Your task to perform on an android device: clear all cookies in the chrome app Image 0: 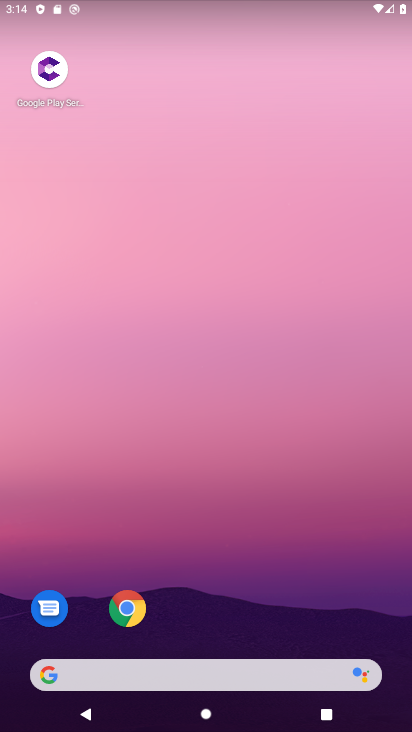
Step 0: drag from (204, 547) to (211, 246)
Your task to perform on an android device: clear all cookies in the chrome app Image 1: 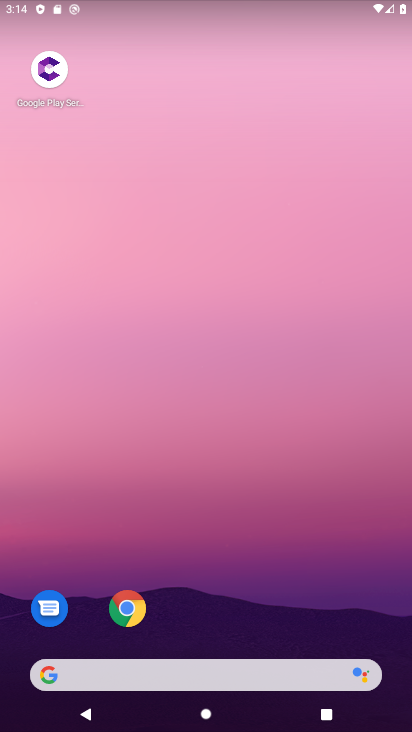
Step 1: drag from (236, 635) to (258, 189)
Your task to perform on an android device: clear all cookies in the chrome app Image 2: 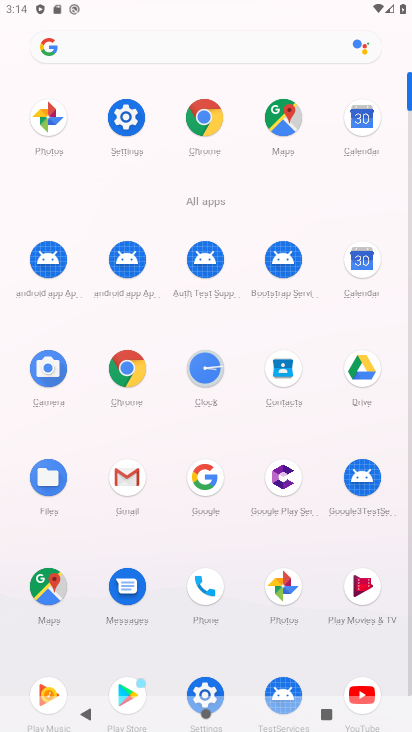
Step 2: click (131, 362)
Your task to perform on an android device: clear all cookies in the chrome app Image 3: 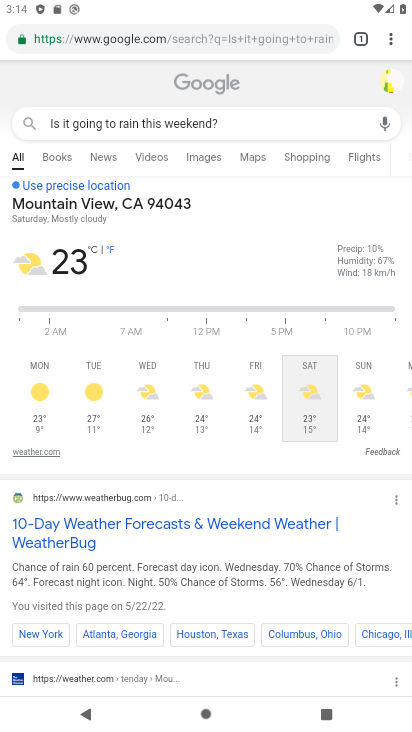
Step 3: click (391, 31)
Your task to perform on an android device: clear all cookies in the chrome app Image 4: 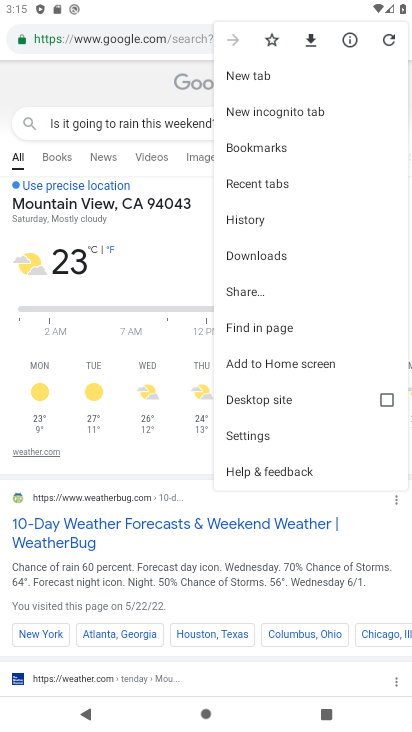
Step 4: click (252, 437)
Your task to perform on an android device: clear all cookies in the chrome app Image 5: 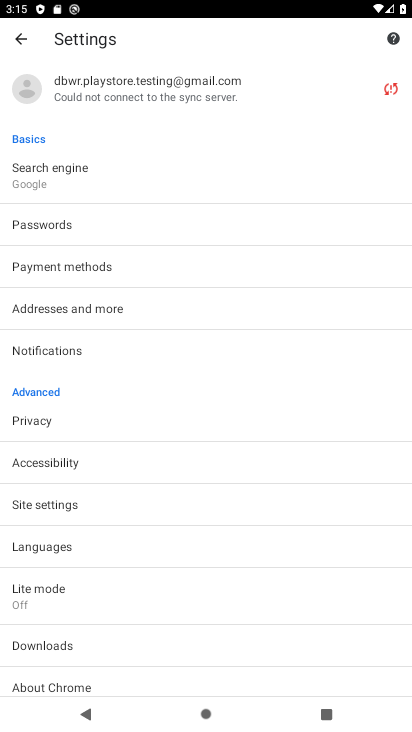
Step 5: press home button
Your task to perform on an android device: clear all cookies in the chrome app Image 6: 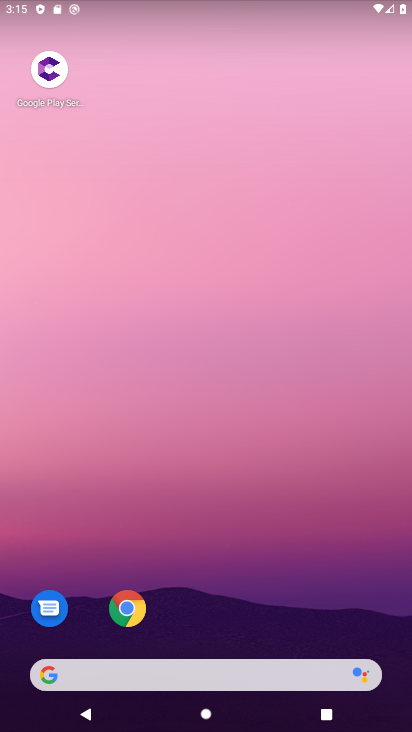
Step 6: click (128, 600)
Your task to perform on an android device: clear all cookies in the chrome app Image 7: 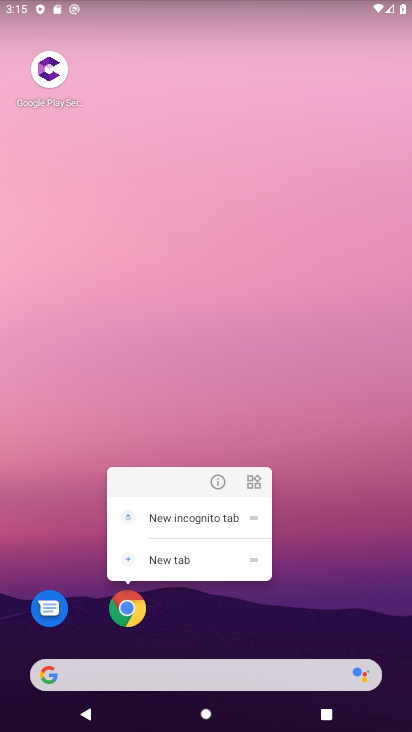
Step 7: click (126, 593)
Your task to perform on an android device: clear all cookies in the chrome app Image 8: 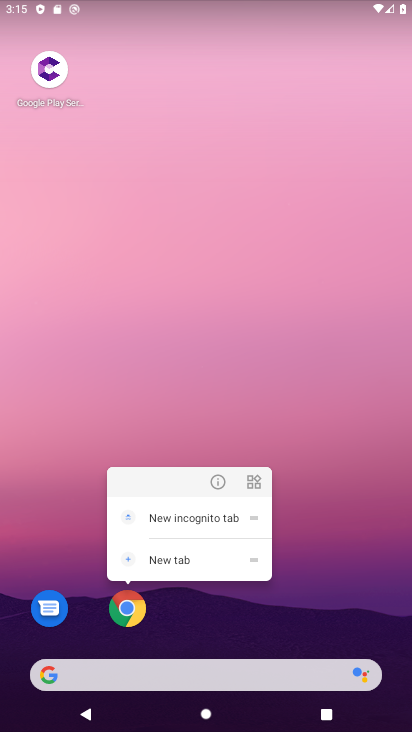
Step 8: click (126, 602)
Your task to perform on an android device: clear all cookies in the chrome app Image 9: 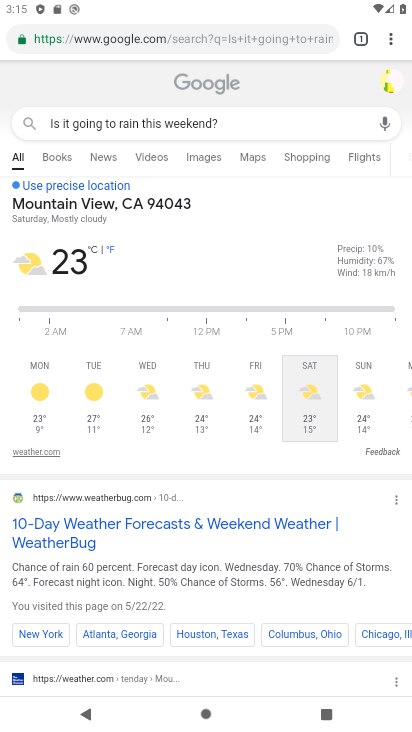
Step 9: click (394, 35)
Your task to perform on an android device: clear all cookies in the chrome app Image 10: 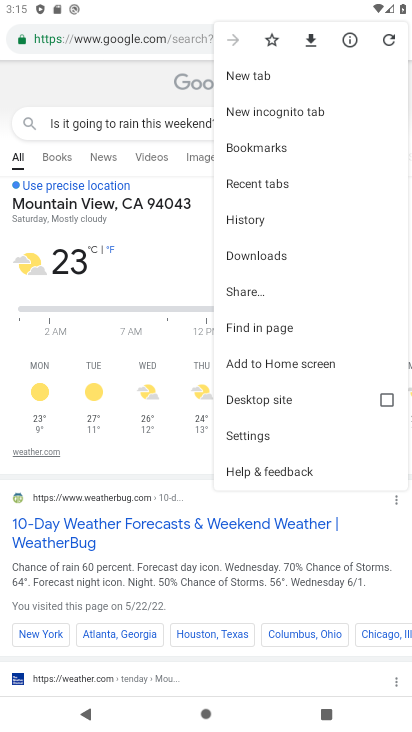
Step 10: click (275, 436)
Your task to perform on an android device: clear all cookies in the chrome app Image 11: 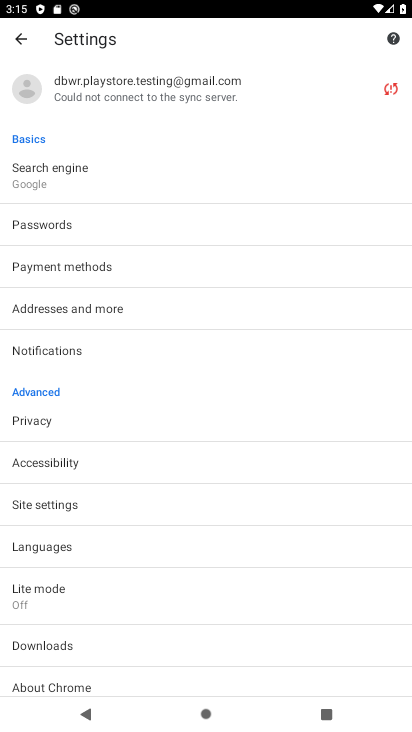
Step 11: click (83, 502)
Your task to perform on an android device: clear all cookies in the chrome app Image 12: 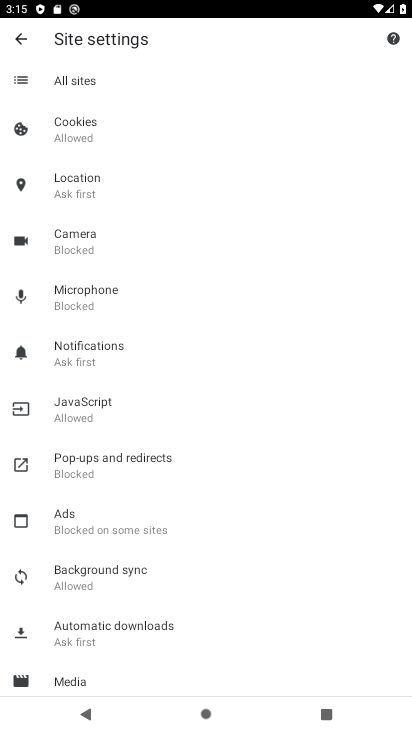
Step 12: drag from (110, 83) to (105, 178)
Your task to perform on an android device: clear all cookies in the chrome app Image 13: 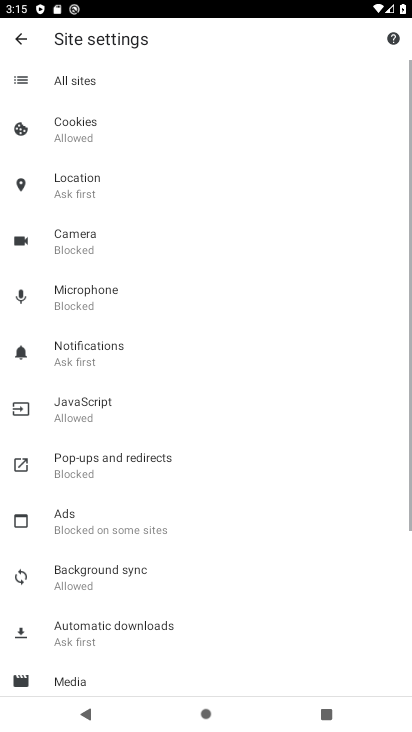
Step 13: click (19, 38)
Your task to perform on an android device: clear all cookies in the chrome app Image 14: 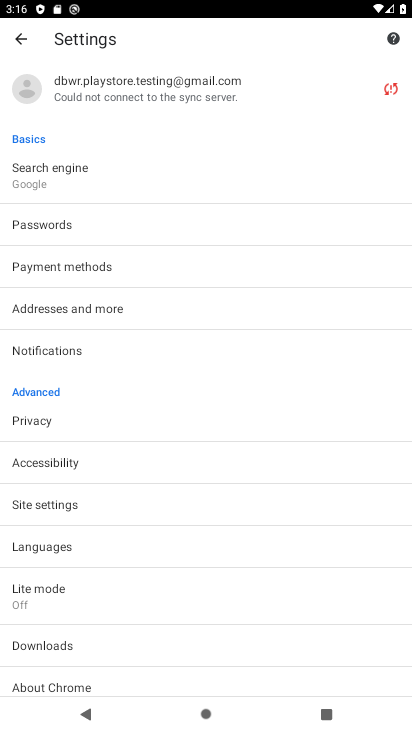
Step 14: click (118, 412)
Your task to perform on an android device: clear all cookies in the chrome app Image 15: 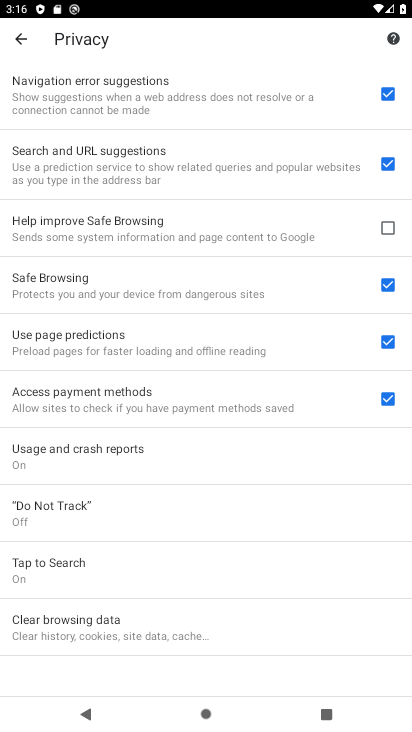
Step 15: click (134, 614)
Your task to perform on an android device: clear all cookies in the chrome app Image 16: 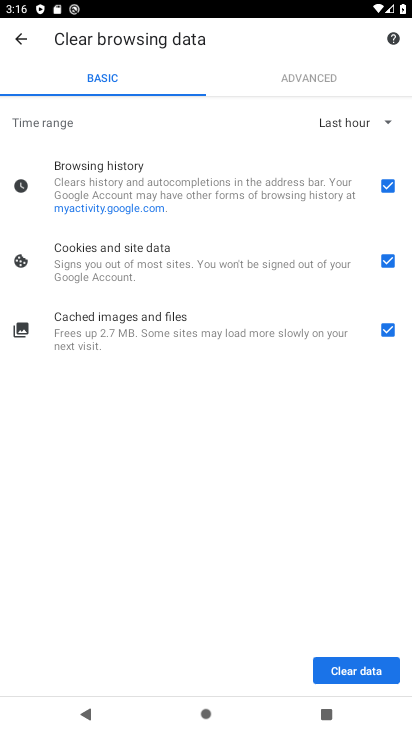
Step 16: click (359, 670)
Your task to perform on an android device: clear all cookies in the chrome app Image 17: 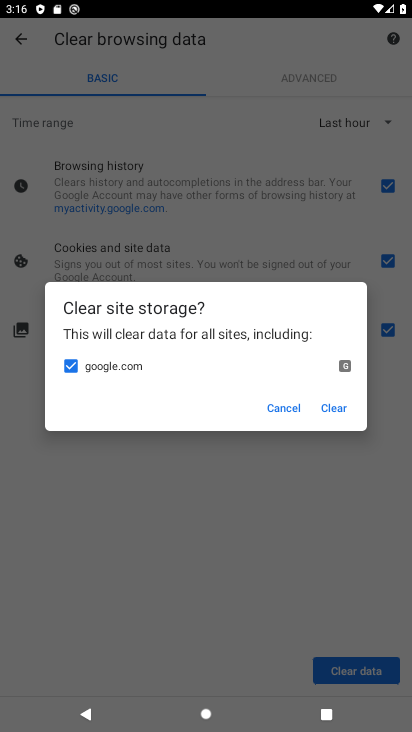
Step 17: click (321, 399)
Your task to perform on an android device: clear all cookies in the chrome app Image 18: 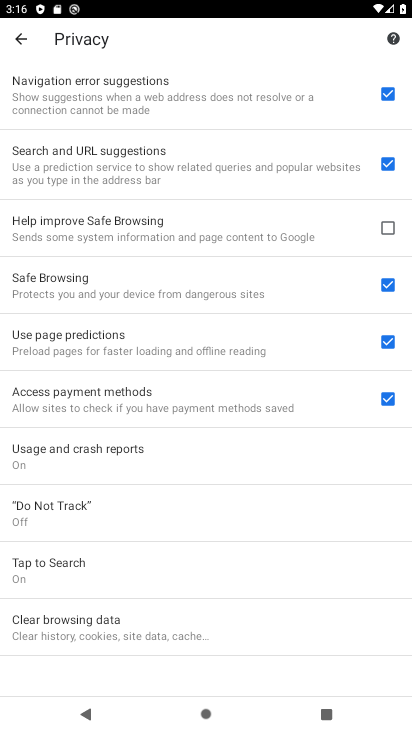
Step 18: task complete